Your task to perform on an android device: find snoozed emails in the gmail app Image 0: 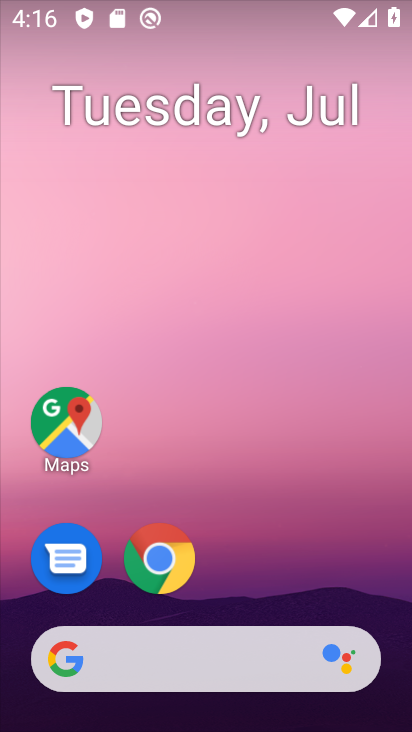
Step 0: drag from (202, 583) to (206, 158)
Your task to perform on an android device: find snoozed emails in the gmail app Image 1: 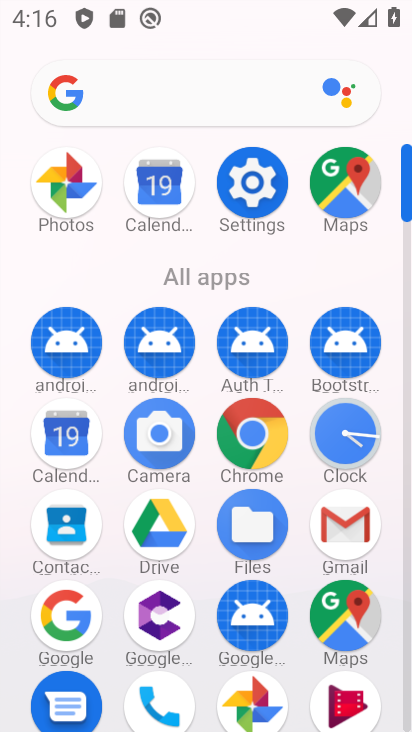
Step 1: click (355, 531)
Your task to perform on an android device: find snoozed emails in the gmail app Image 2: 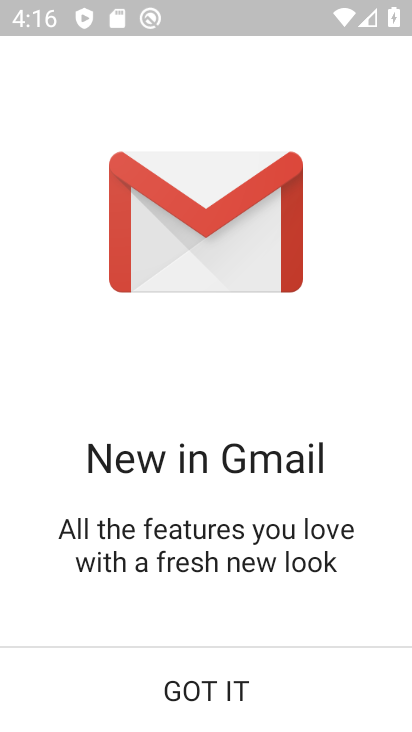
Step 2: click (228, 696)
Your task to perform on an android device: find snoozed emails in the gmail app Image 3: 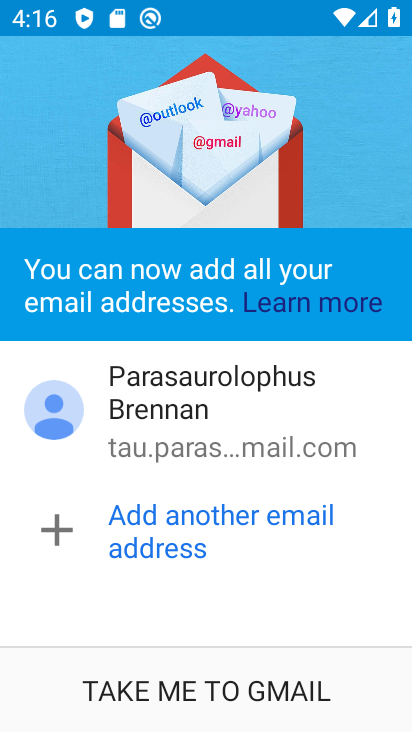
Step 3: click (220, 683)
Your task to perform on an android device: find snoozed emails in the gmail app Image 4: 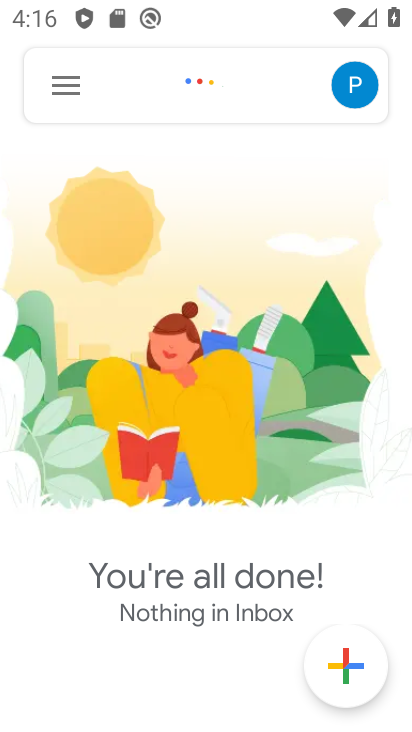
Step 4: click (61, 87)
Your task to perform on an android device: find snoozed emails in the gmail app Image 5: 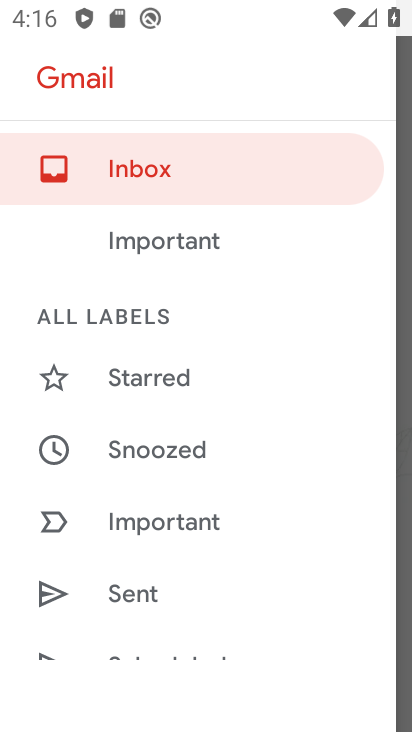
Step 5: click (171, 454)
Your task to perform on an android device: find snoozed emails in the gmail app Image 6: 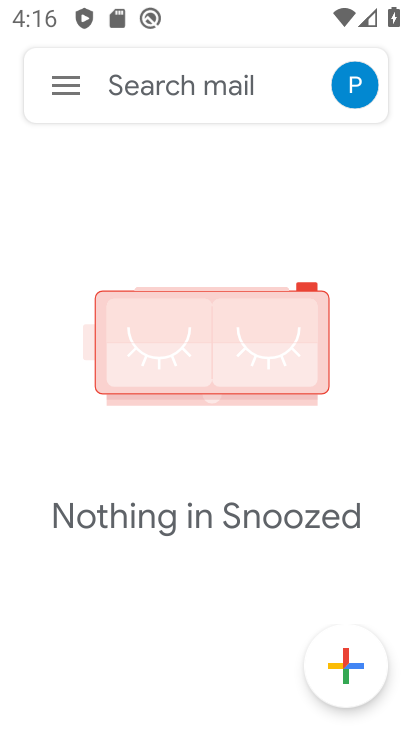
Step 6: task complete